Your task to perform on an android device: open app "NewsBreak: Local News & Alerts" (install if not already installed) and go to login screen Image 0: 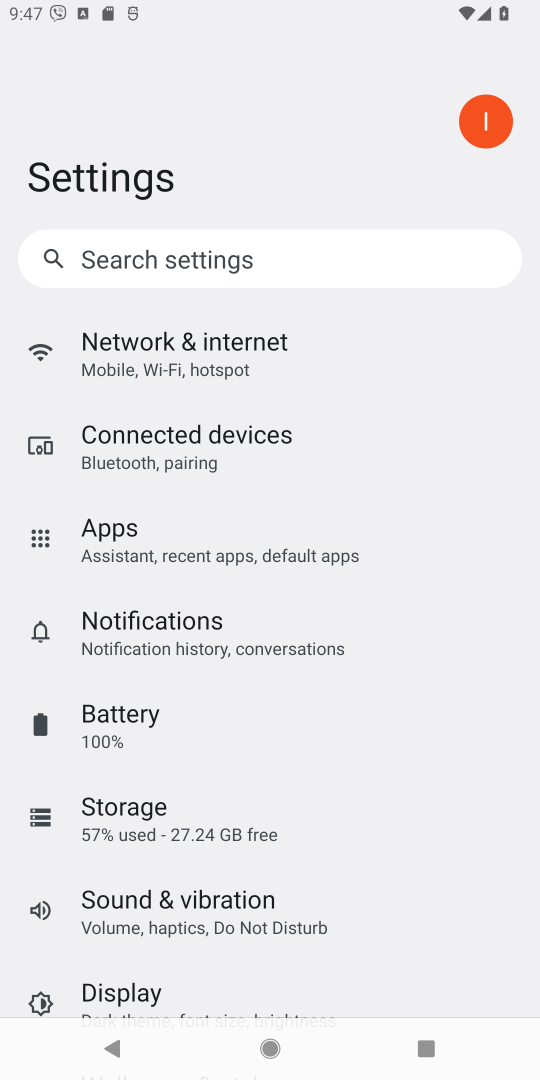
Step 0: press home button
Your task to perform on an android device: open app "NewsBreak: Local News & Alerts" (install if not already installed) and go to login screen Image 1: 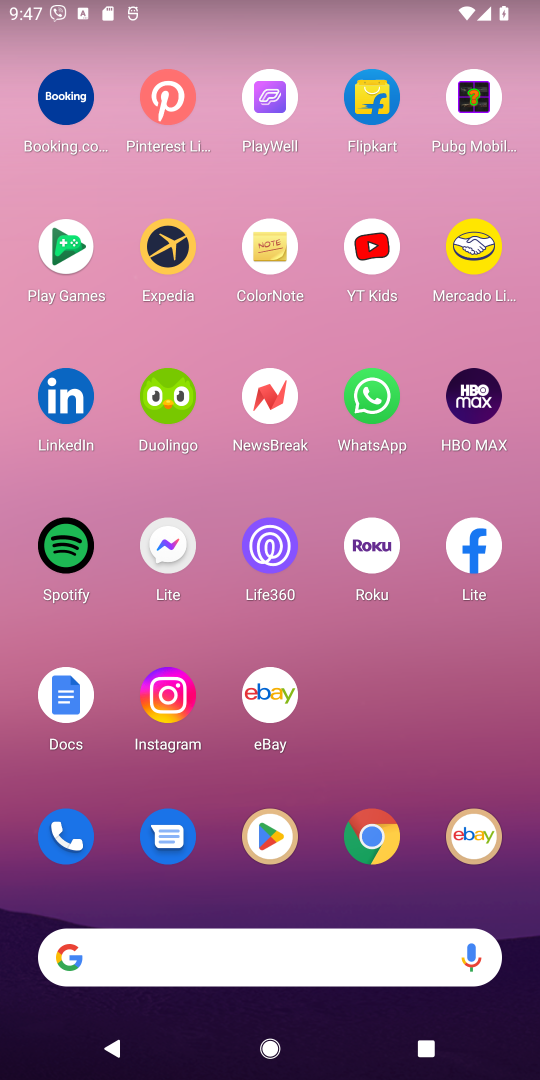
Step 1: press home button
Your task to perform on an android device: open app "NewsBreak: Local News & Alerts" (install if not already installed) and go to login screen Image 2: 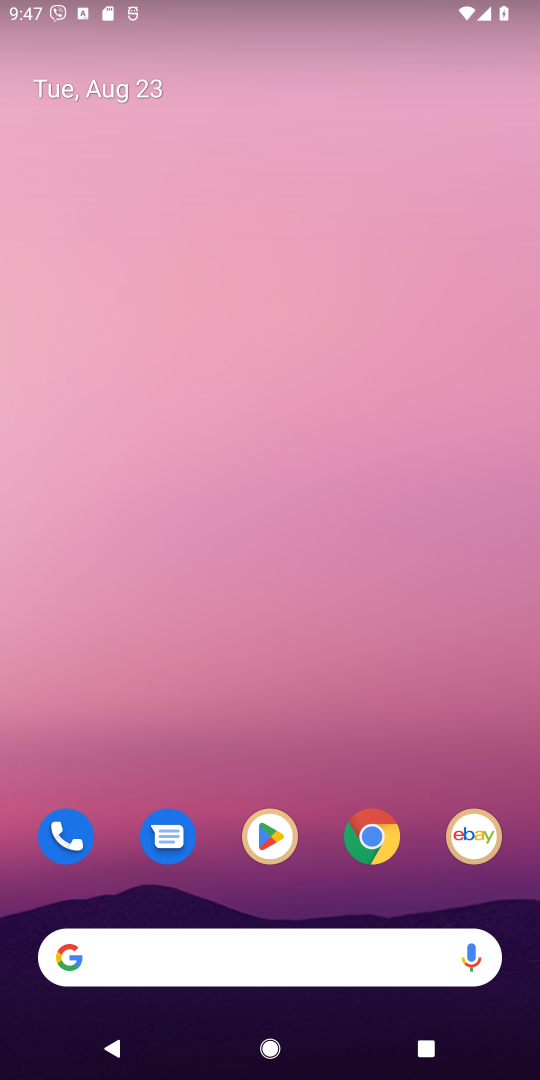
Step 2: click (271, 821)
Your task to perform on an android device: open app "NewsBreak: Local News & Alerts" (install if not already installed) and go to login screen Image 3: 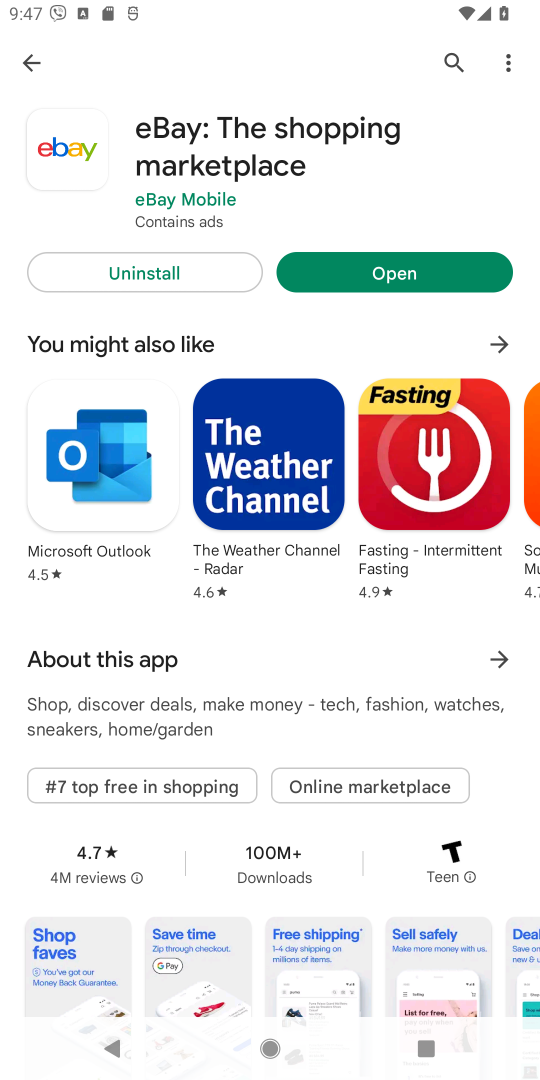
Step 3: click (449, 50)
Your task to perform on an android device: open app "NewsBreak: Local News & Alerts" (install if not already installed) and go to login screen Image 4: 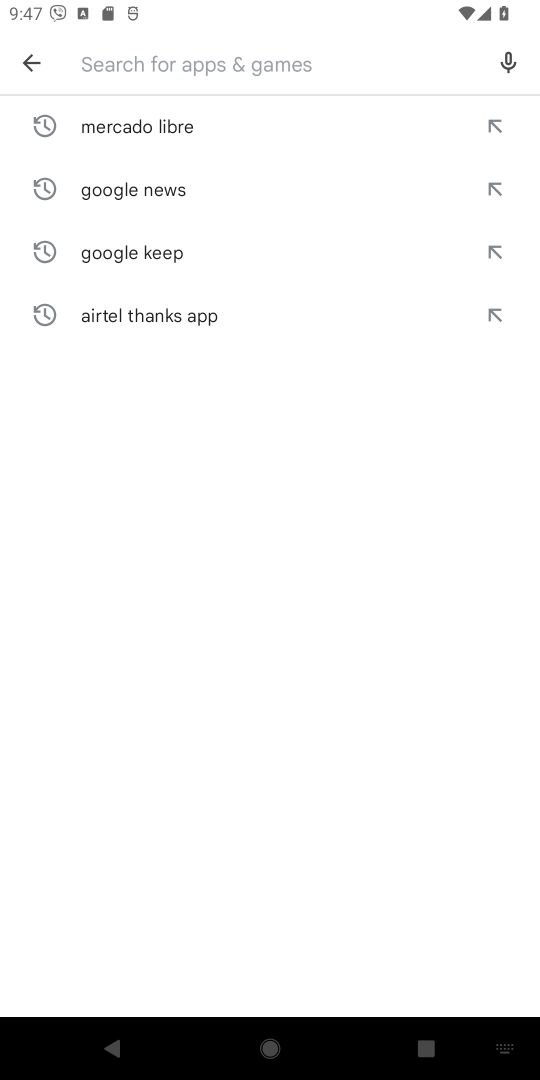
Step 4: type "NewsBreak: Local News & Alerts"
Your task to perform on an android device: open app "NewsBreak: Local News & Alerts" (install if not already installed) and go to login screen Image 5: 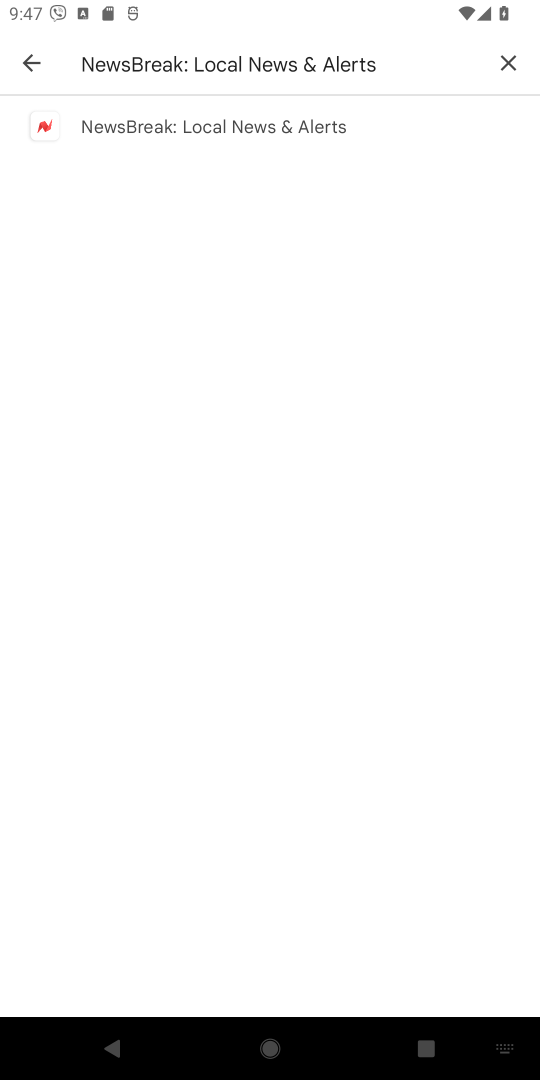
Step 5: click (244, 120)
Your task to perform on an android device: open app "NewsBreak: Local News & Alerts" (install if not already installed) and go to login screen Image 6: 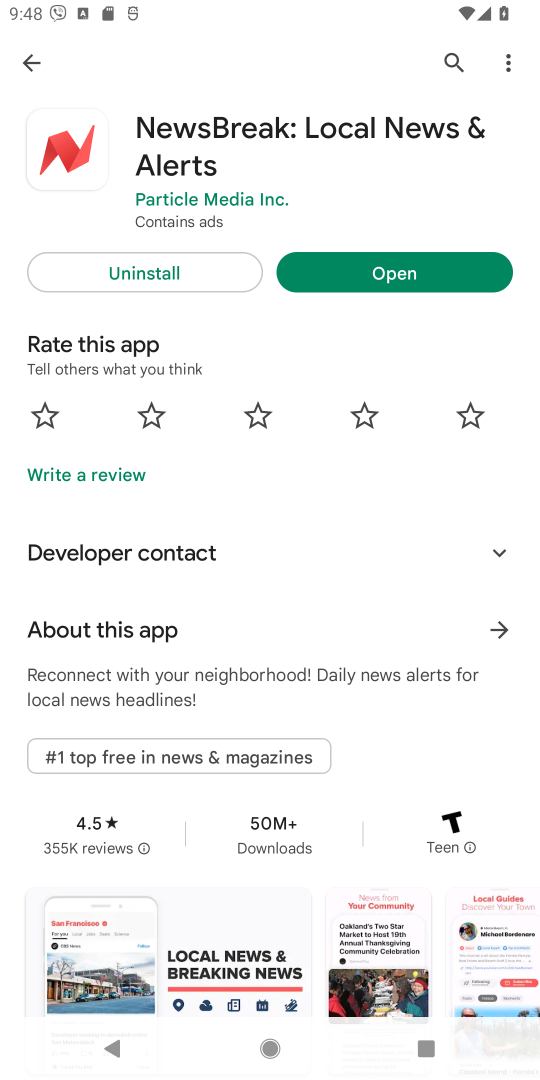
Step 6: click (404, 274)
Your task to perform on an android device: open app "NewsBreak: Local News & Alerts" (install if not already installed) and go to login screen Image 7: 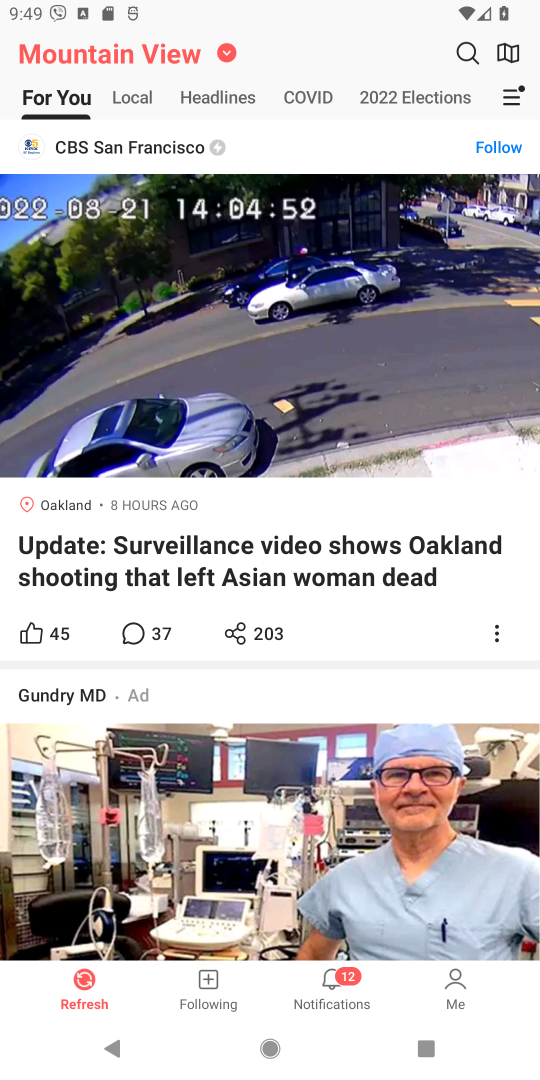
Step 7: task complete